Your task to perform on an android device: turn notification dots on Image 0: 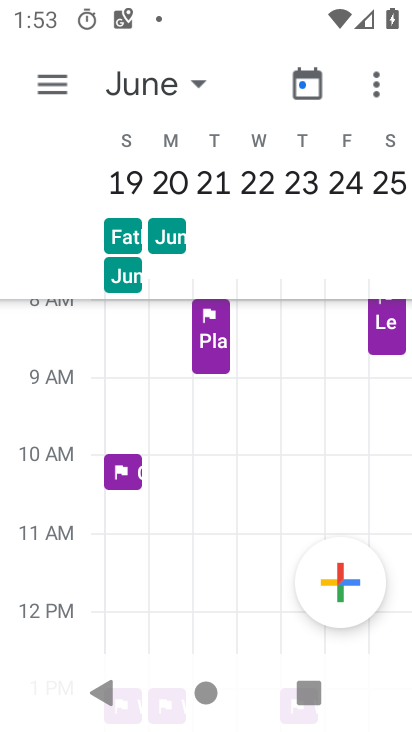
Step 0: press home button
Your task to perform on an android device: turn notification dots on Image 1: 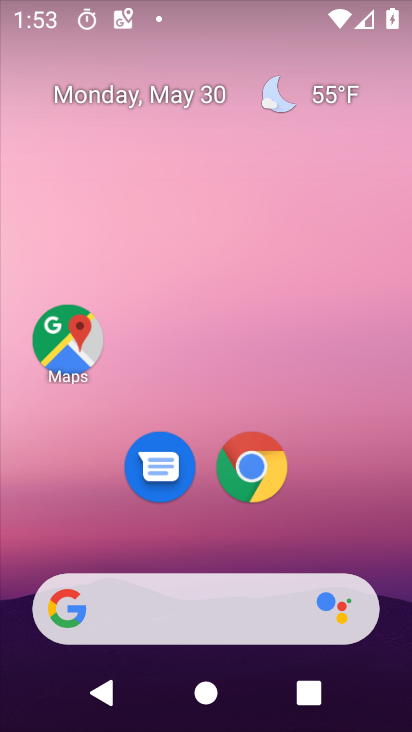
Step 1: drag from (385, 689) to (343, 241)
Your task to perform on an android device: turn notification dots on Image 2: 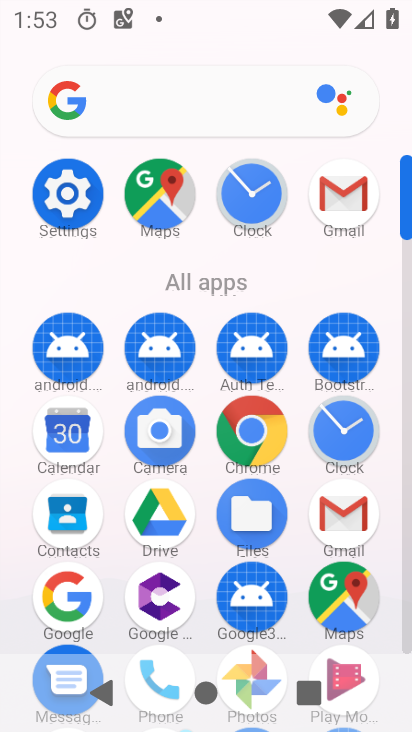
Step 2: click (76, 192)
Your task to perform on an android device: turn notification dots on Image 3: 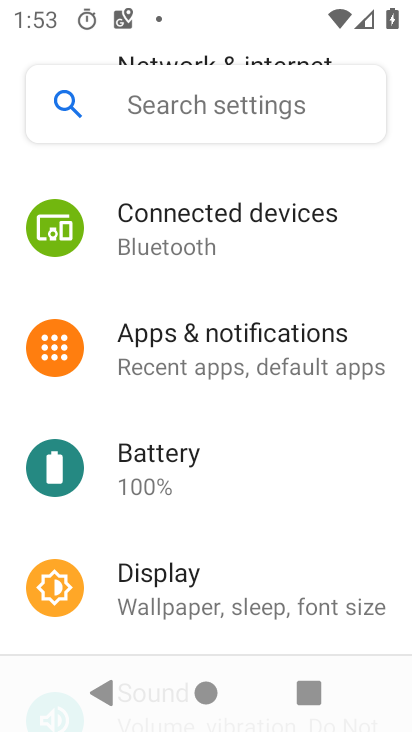
Step 3: click (203, 359)
Your task to perform on an android device: turn notification dots on Image 4: 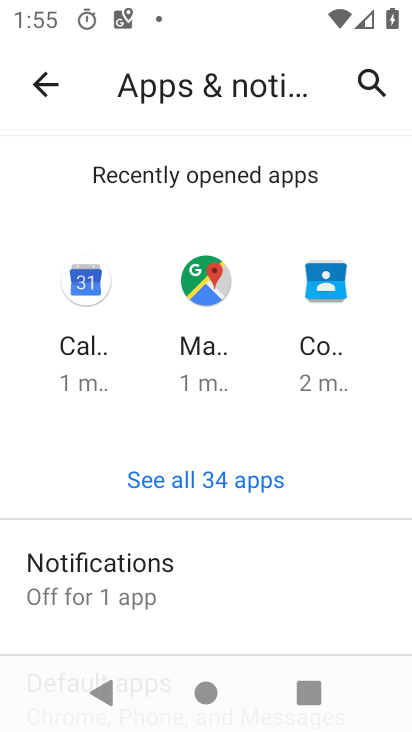
Step 4: drag from (286, 605) to (268, 322)
Your task to perform on an android device: turn notification dots on Image 5: 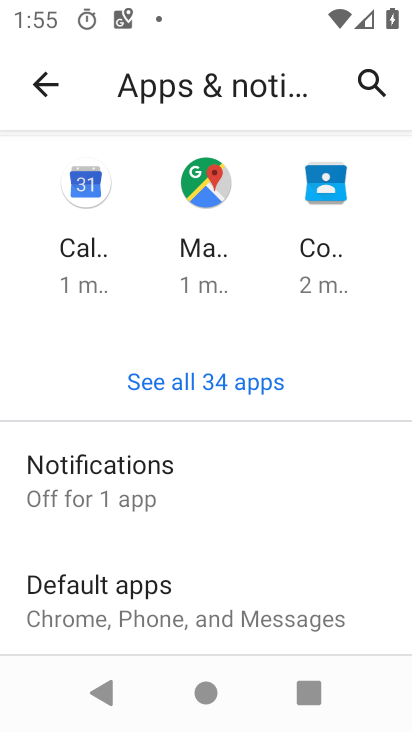
Step 5: click (113, 470)
Your task to perform on an android device: turn notification dots on Image 6: 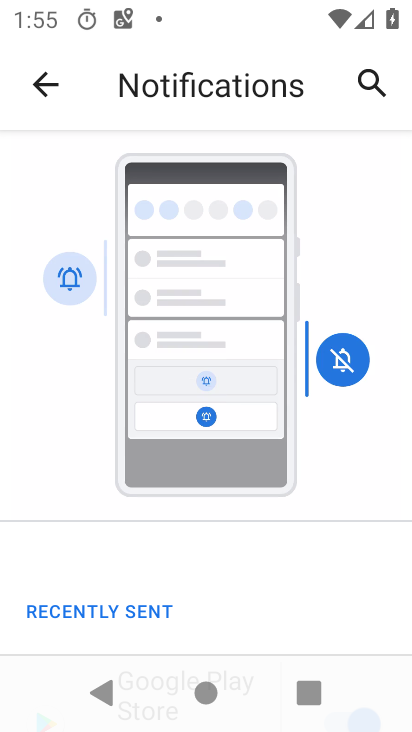
Step 6: drag from (238, 594) to (209, 199)
Your task to perform on an android device: turn notification dots on Image 7: 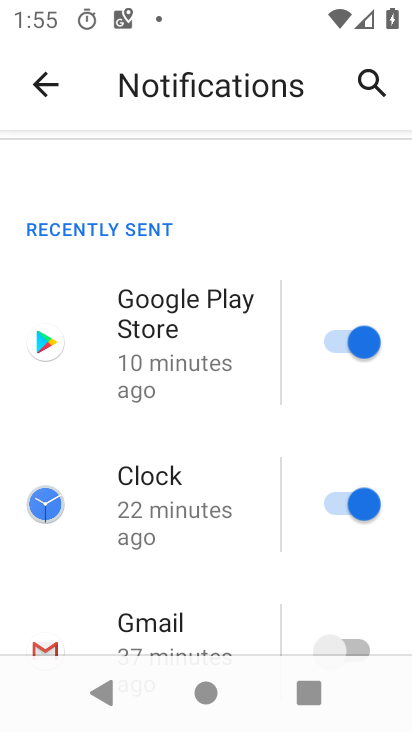
Step 7: drag from (240, 620) to (216, 224)
Your task to perform on an android device: turn notification dots on Image 8: 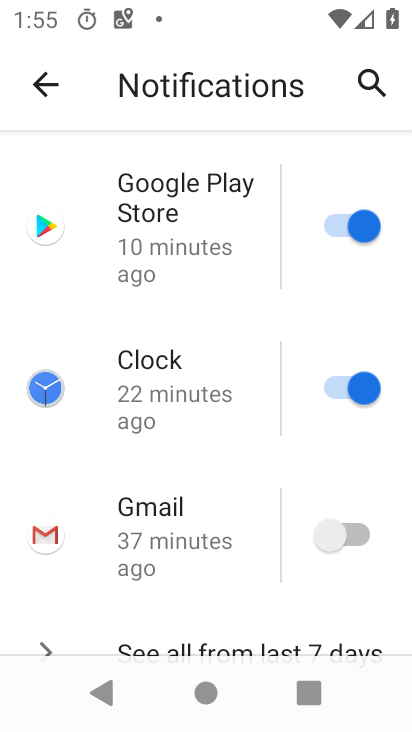
Step 8: drag from (244, 601) to (226, 177)
Your task to perform on an android device: turn notification dots on Image 9: 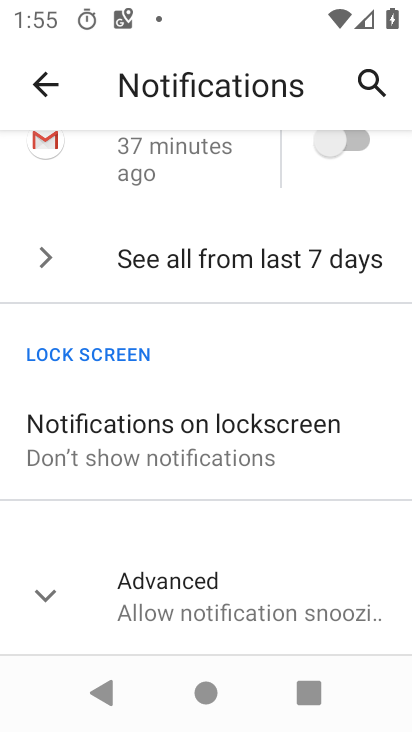
Step 9: drag from (242, 579) to (217, 217)
Your task to perform on an android device: turn notification dots on Image 10: 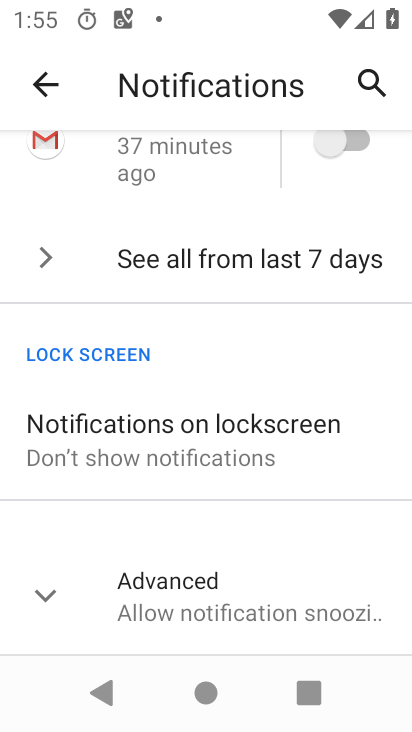
Step 10: click (51, 597)
Your task to perform on an android device: turn notification dots on Image 11: 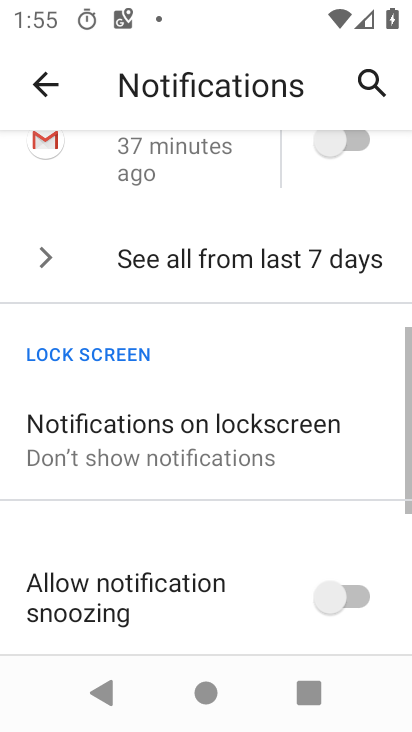
Step 11: task complete